Your task to perform on an android device: Go to calendar. Show me events next week Image 0: 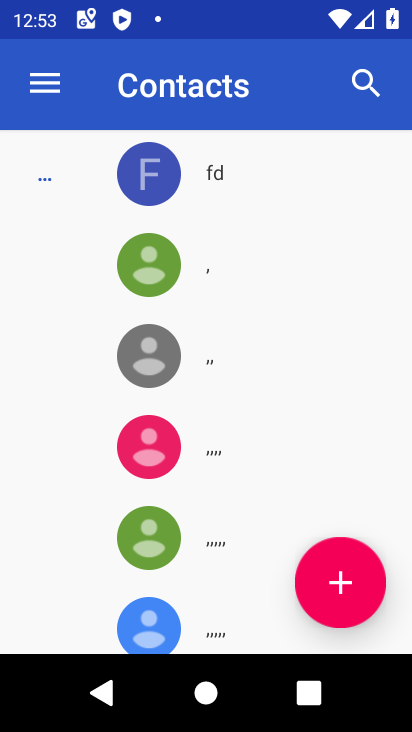
Step 0: drag from (244, 395) to (258, 38)
Your task to perform on an android device: Go to calendar. Show me events next week Image 1: 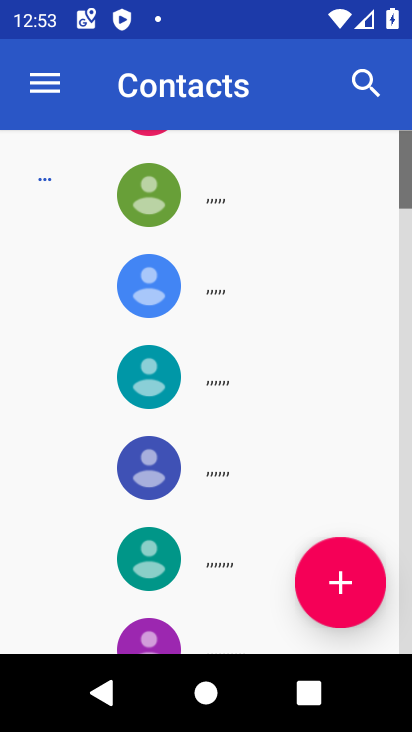
Step 1: press home button
Your task to perform on an android device: Go to calendar. Show me events next week Image 2: 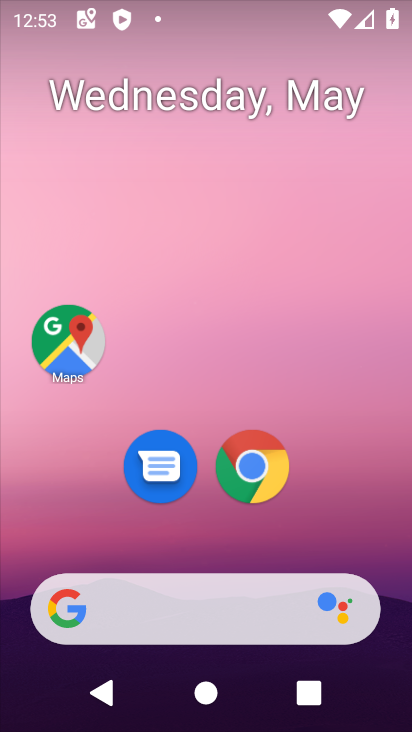
Step 2: drag from (215, 544) to (239, 23)
Your task to perform on an android device: Go to calendar. Show me events next week Image 3: 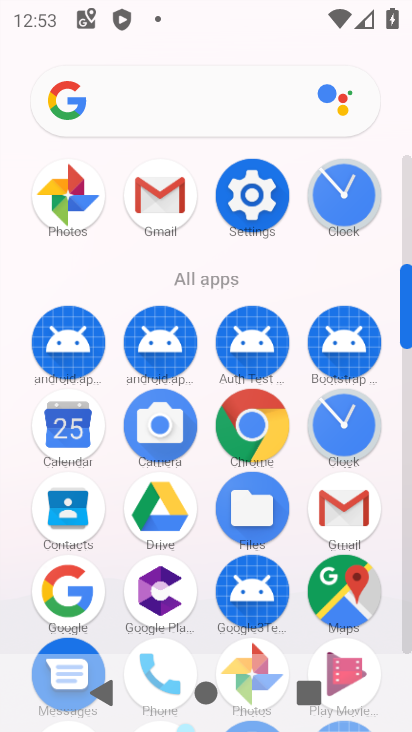
Step 3: click (71, 430)
Your task to perform on an android device: Go to calendar. Show me events next week Image 4: 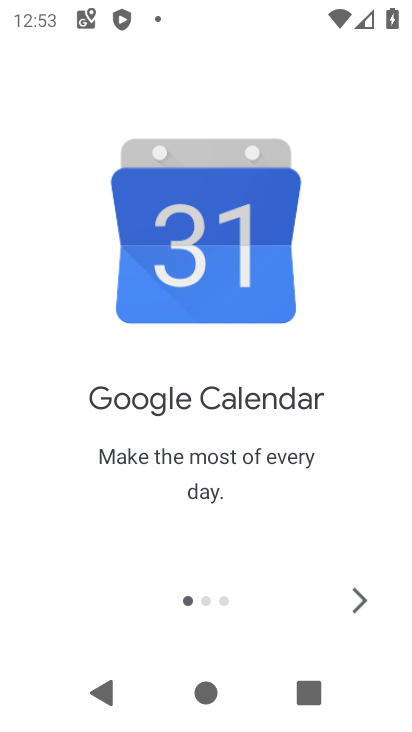
Step 4: click (360, 611)
Your task to perform on an android device: Go to calendar. Show me events next week Image 5: 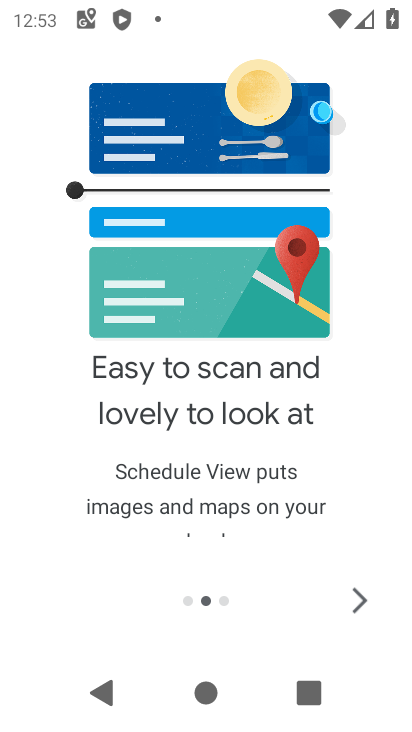
Step 5: click (360, 611)
Your task to perform on an android device: Go to calendar. Show me events next week Image 6: 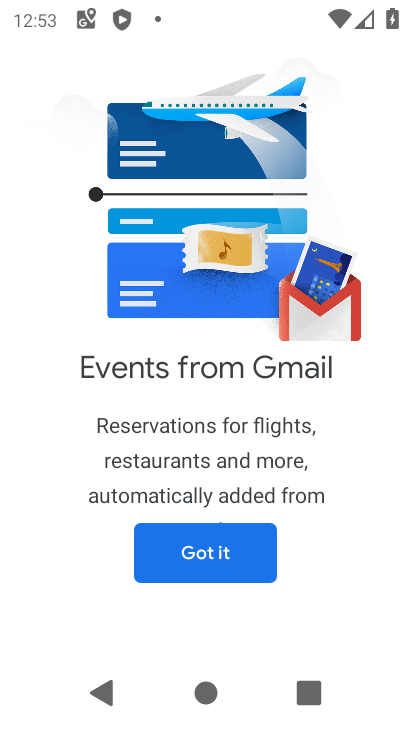
Step 6: click (360, 611)
Your task to perform on an android device: Go to calendar. Show me events next week Image 7: 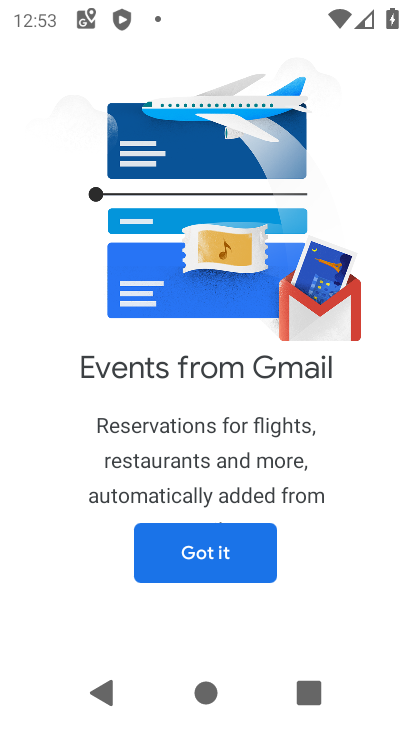
Step 7: click (217, 570)
Your task to perform on an android device: Go to calendar. Show me events next week Image 8: 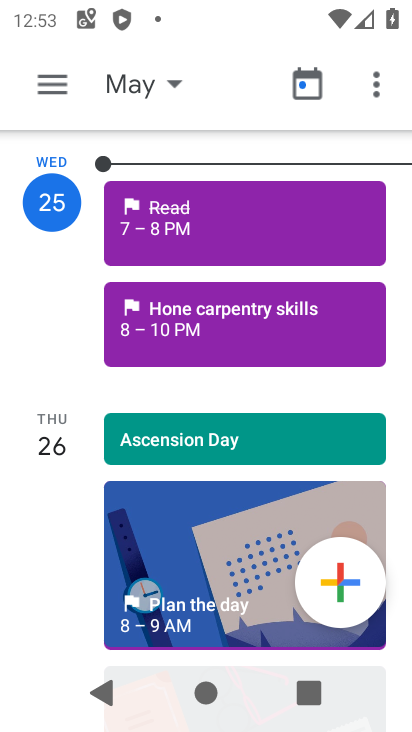
Step 8: click (172, 86)
Your task to perform on an android device: Go to calendar. Show me events next week Image 9: 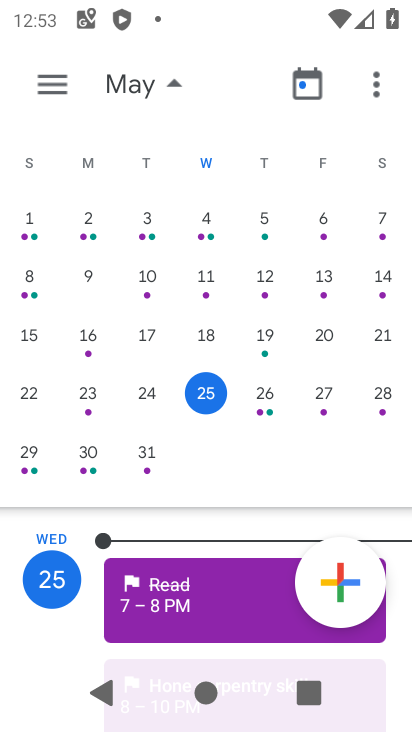
Step 9: click (331, 394)
Your task to perform on an android device: Go to calendar. Show me events next week Image 10: 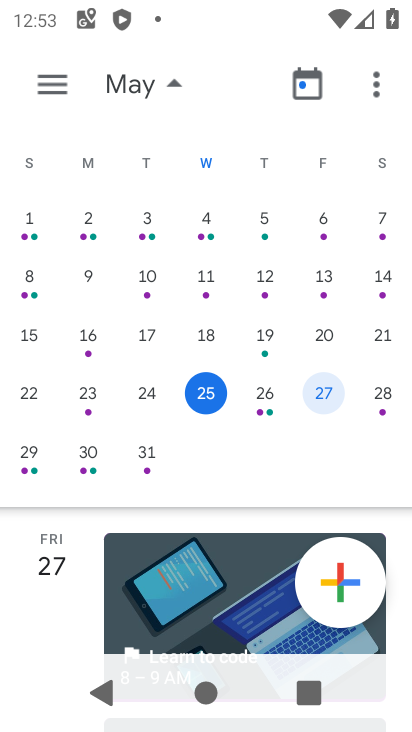
Step 10: task complete